Your task to perform on an android device: turn on improve location accuracy Image 0: 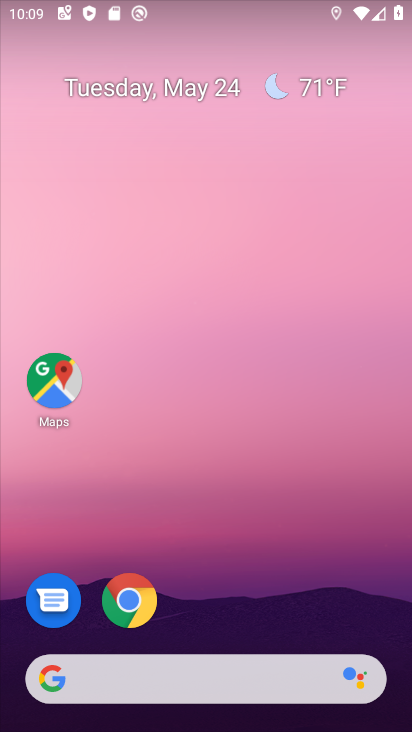
Step 0: drag from (233, 552) to (201, 62)
Your task to perform on an android device: turn on improve location accuracy Image 1: 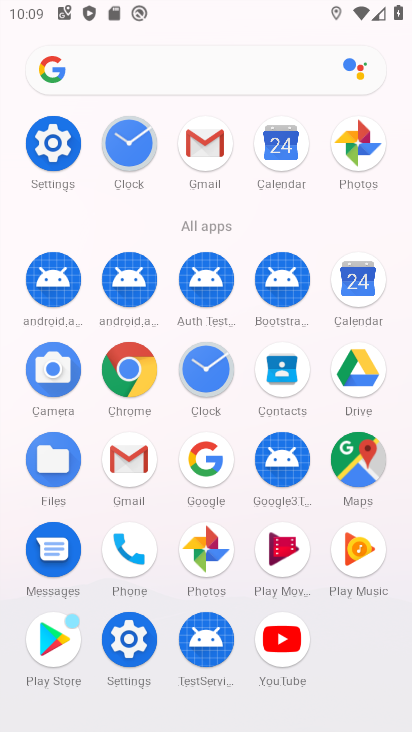
Step 1: click (42, 156)
Your task to perform on an android device: turn on improve location accuracy Image 2: 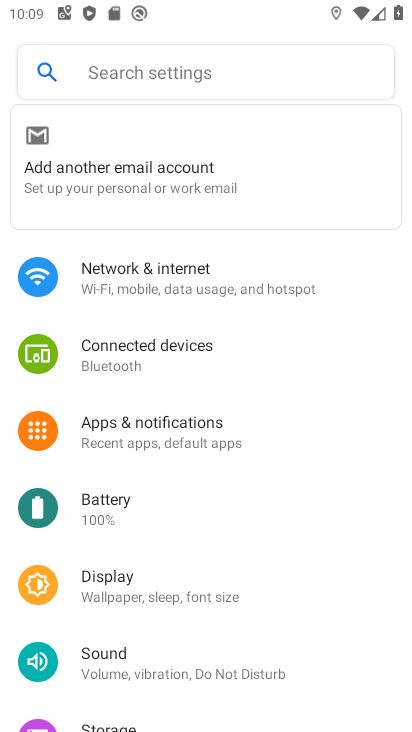
Step 2: drag from (222, 678) to (207, 359)
Your task to perform on an android device: turn on improve location accuracy Image 3: 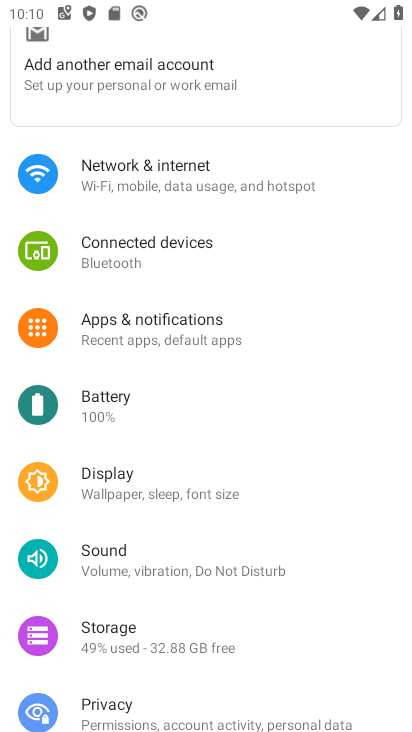
Step 3: drag from (218, 681) to (211, 419)
Your task to perform on an android device: turn on improve location accuracy Image 4: 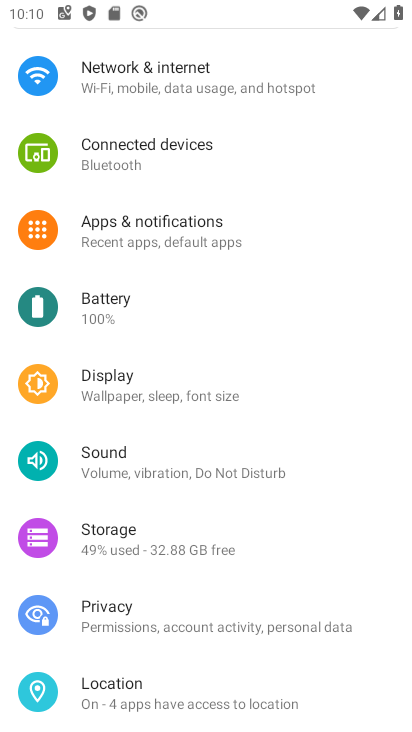
Step 4: click (271, 710)
Your task to perform on an android device: turn on improve location accuracy Image 5: 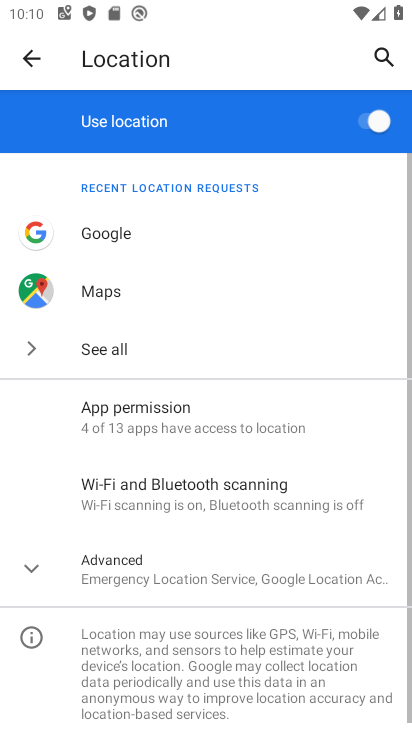
Step 5: click (297, 576)
Your task to perform on an android device: turn on improve location accuracy Image 6: 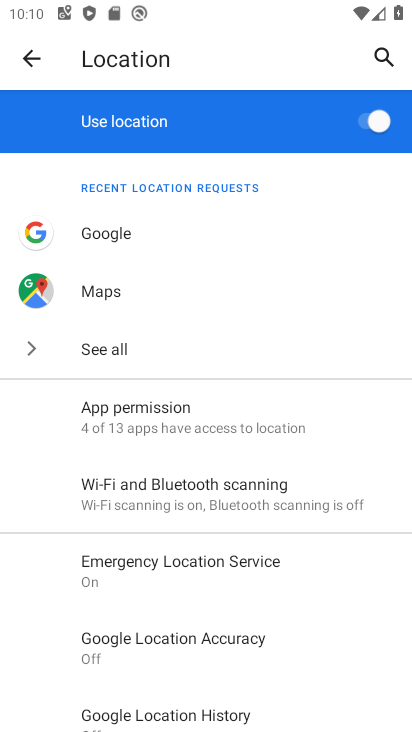
Step 6: click (250, 655)
Your task to perform on an android device: turn on improve location accuracy Image 7: 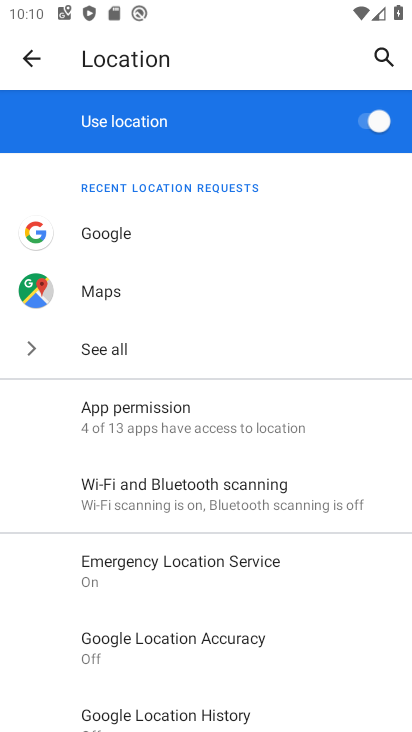
Step 7: drag from (252, 659) to (219, 337)
Your task to perform on an android device: turn on improve location accuracy Image 8: 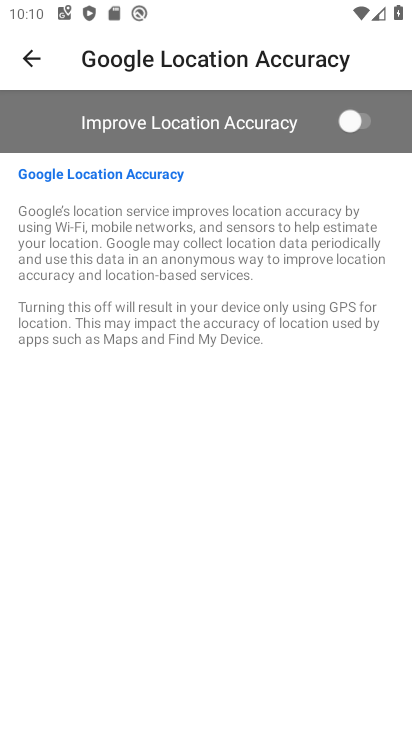
Step 8: click (360, 118)
Your task to perform on an android device: turn on improve location accuracy Image 9: 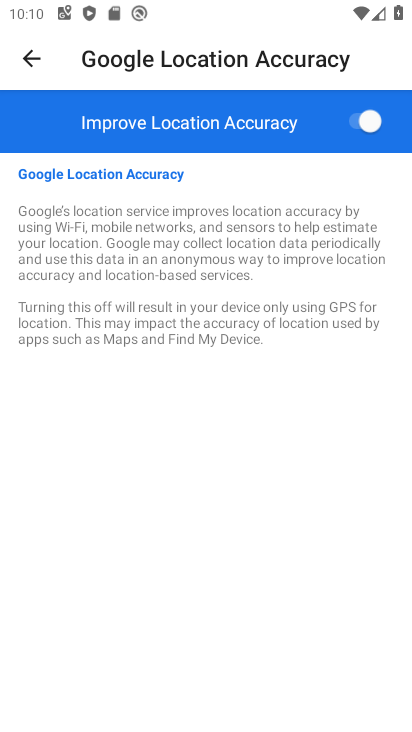
Step 9: task complete